Your task to perform on an android device: turn off airplane mode Image 0: 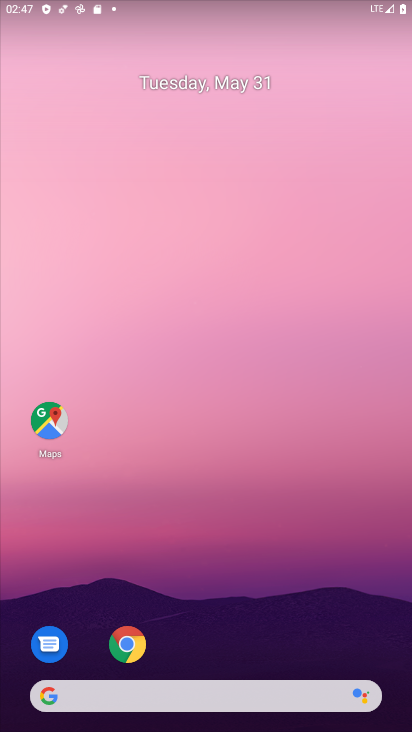
Step 0: drag from (253, 608) to (284, 157)
Your task to perform on an android device: turn off airplane mode Image 1: 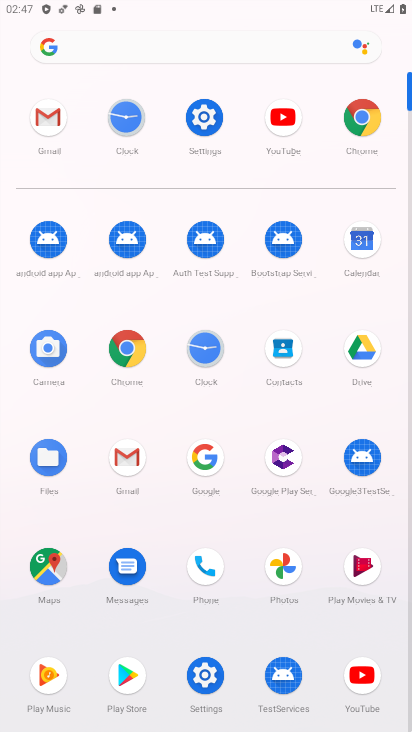
Step 1: click (209, 108)
Your task to perform on an android device: turn off airplane mode Image 2: 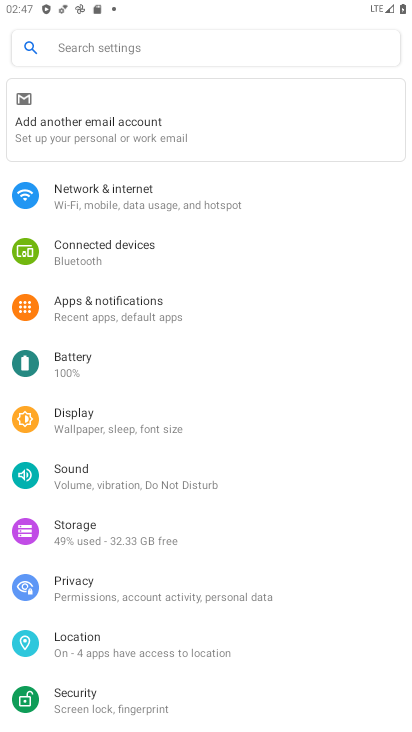
Step 2: click (164, 195)
Your task to perform on an android device: turn off airplane mode Image 3: 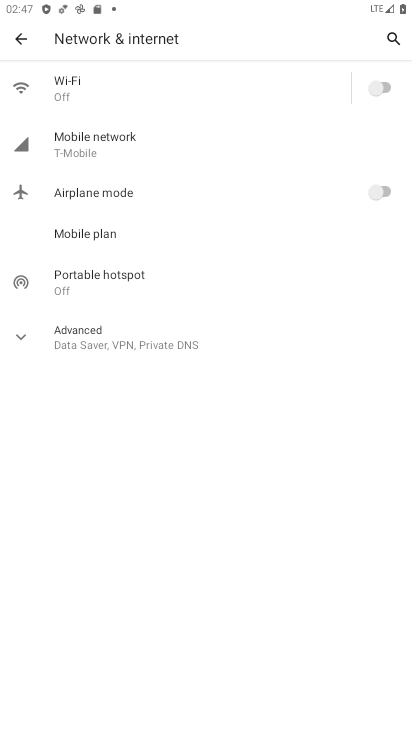
Step 3: task complete